Your task to perform on an android device: toggle notifications settings in the gmail app Image 0: 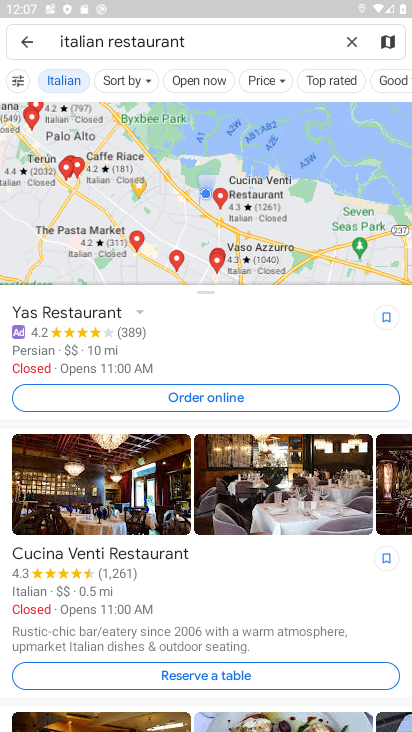
Step 0: press home button
Your task to perform on an android device: toggle notifications settings in the gmail app Image 1: 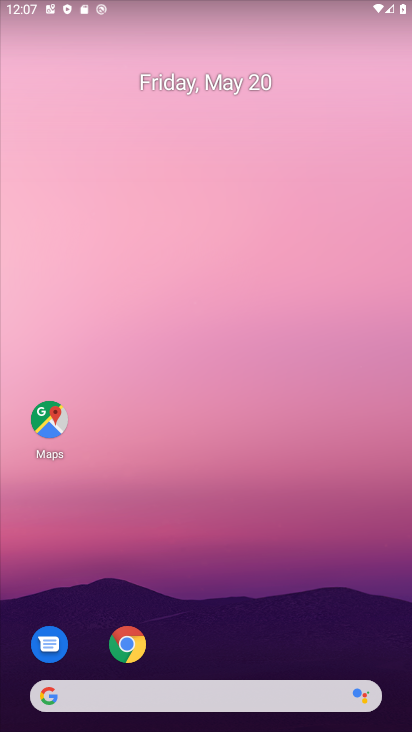
Step 1: drag from (262, 651) to (229, 0)
Your task to perform on an android device: toggle notifications settings in the gmail app Image 2: 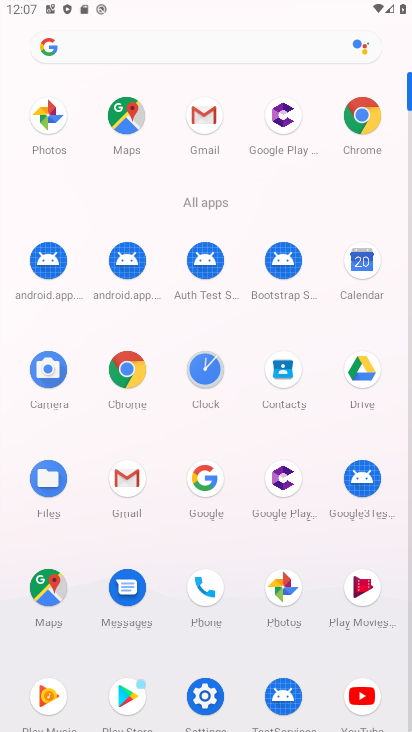
Step 2: click (209, 136)
Your task to perform on an android device: toggle notifications settings in the gmail app Image 3: 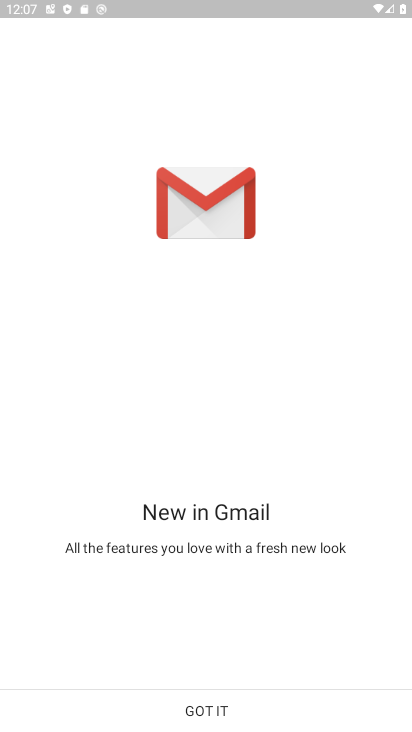
Step 3: click (205, 708)
Your task to perform on an android device: toggle notifications settings in the gmail app Image 4: 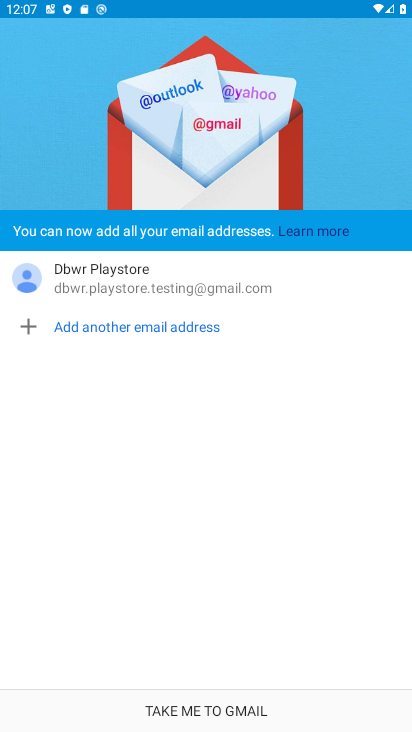
Step 4: click (205, 709)
Your task to perform on an android device: toggle notifications settings in the gmail app Image 5: 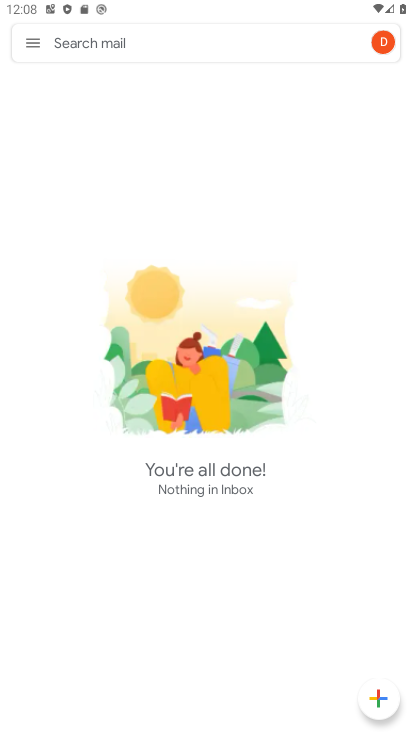
Step 5: click (36, 43)
Your task to perform on an android device: toggle notifications settings in the gmail app Image 6: 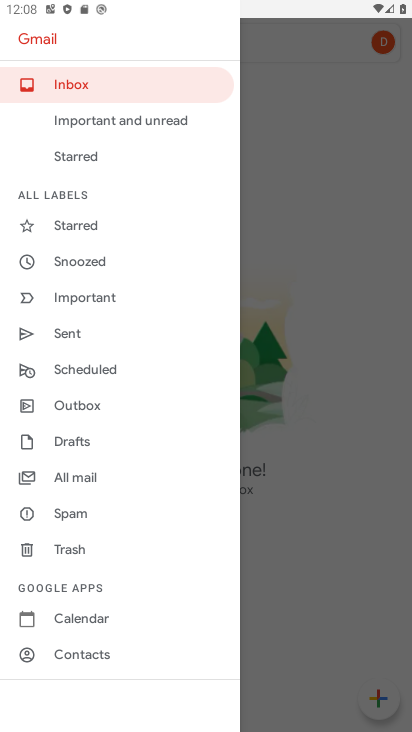
Step 6: drag from (141, 592) to (150, 330)
Your task to perform on an android device: toggle notifications settings in the gmail app Image 7: 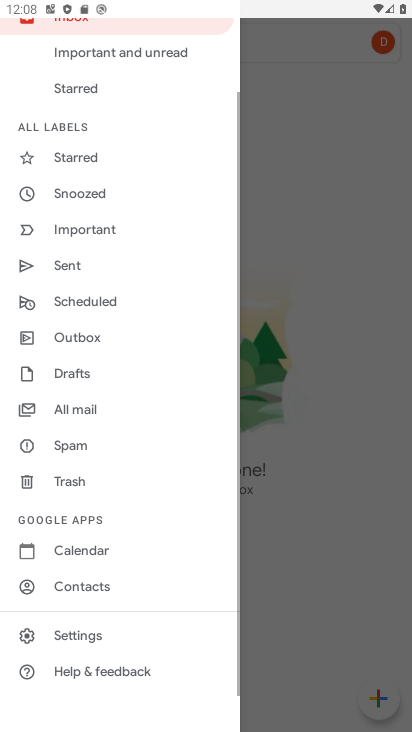
Step 7: click (81, 637)
Your task to perform on an android device: toggle notifications settings in the gmail app Image 8: 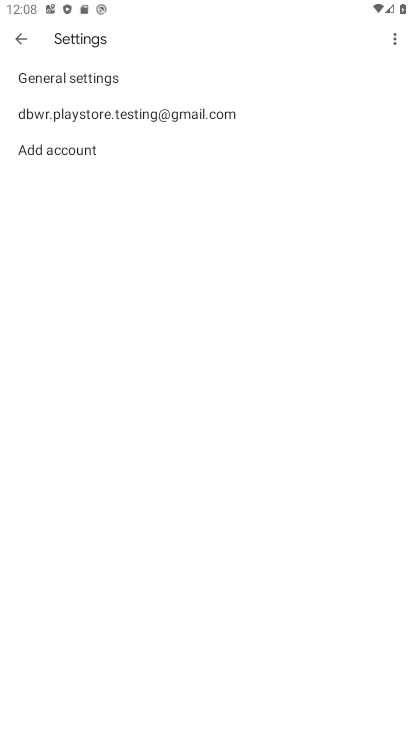
Step 8: click (73, 81)
Your task to perform on an android device: toggle notifications settings in the gmail app Image 9: 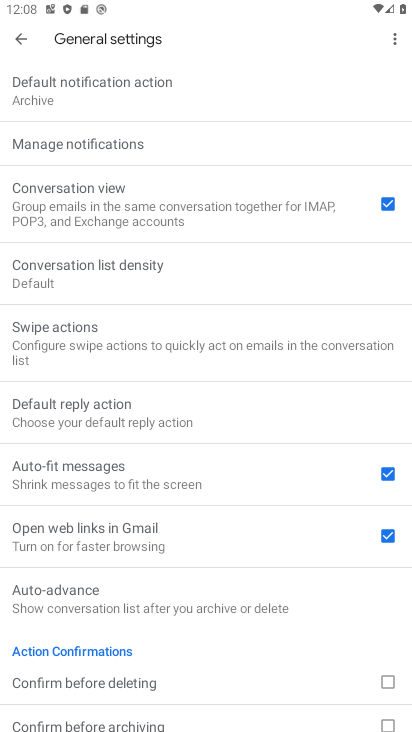
Step 9: click (91, 145)
Your task to perform on an android device: toggle notifications settings in the gmail app Image 10: 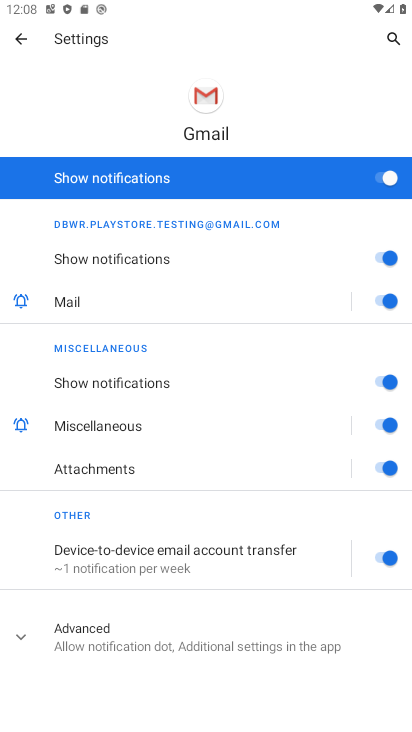
Step 10: click (388, 183)
Your task to perform on an android device: toggle notifications settings in the gmail app Image 11: 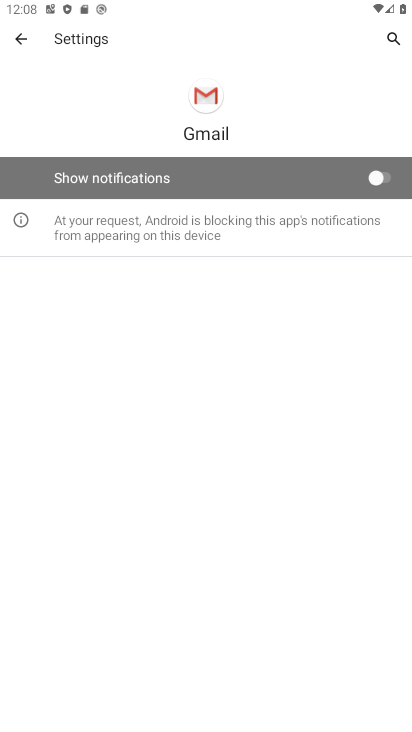
Step 11: task complete